Your task to perform on an android device: What's on my calendar tomorrow? Image 0: 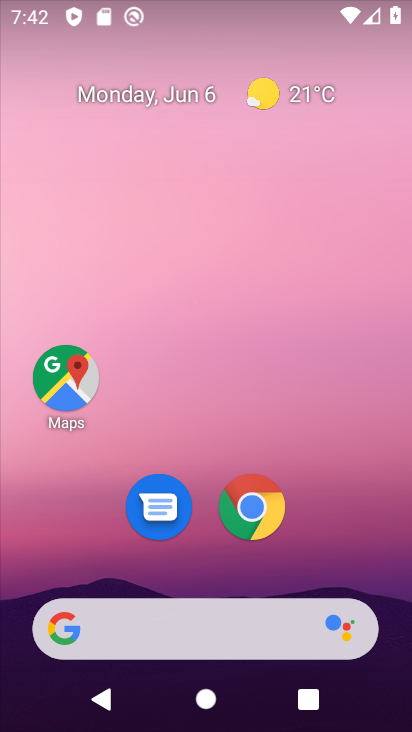
Step 0: drag from (221, 554) to (330, 0)
Your task to perform on an android device: What's on my calendar tomorrow? Image 1: 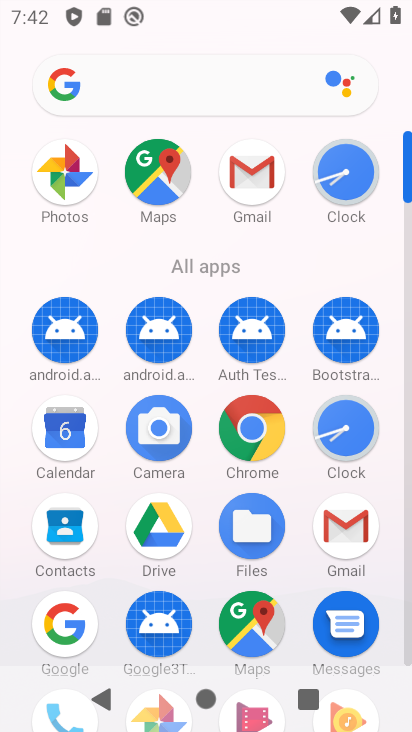
Step 1: drag from (201, 620) to (234, 305)
Your task to perform on an android device: What's on my calendar tomorrow? Image 2: 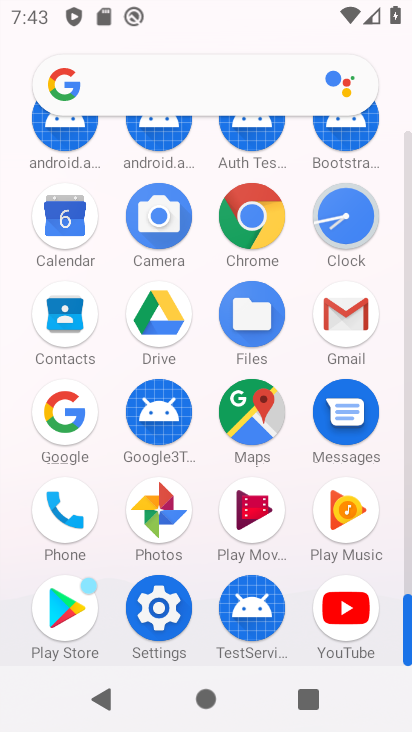
Step 2: drag from (302, 587) to (330, 316)
Your task to perform on an android device: What's on my calendar tomorrow? Image 3: 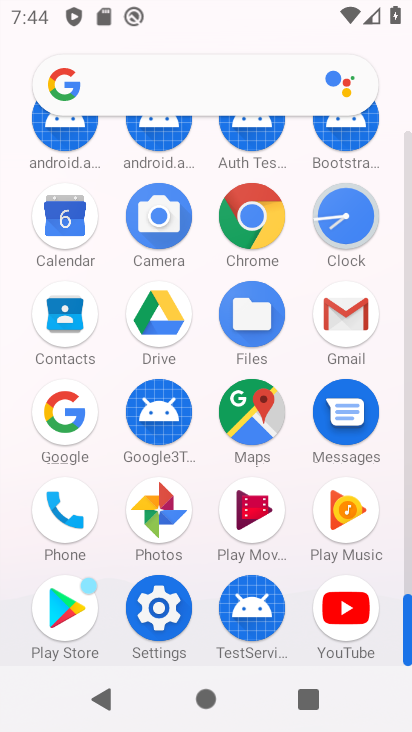
Step 3: drag from (240, 186) to (190, 375)
Your task to perform on an android device: What's on my calendar tomorrow? Image 4: 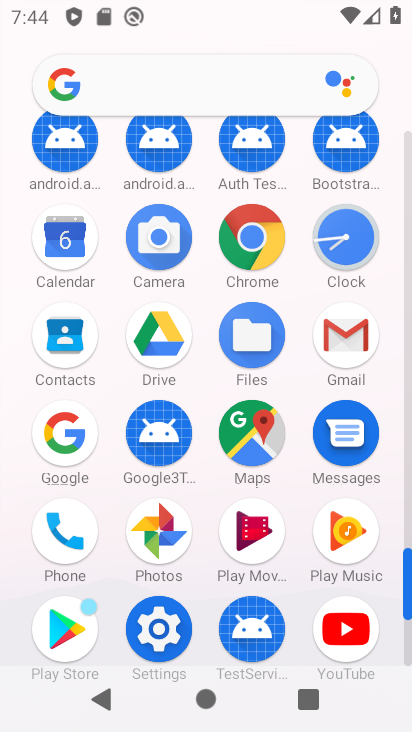
Step 4: drag from (227, 484) to (285, 261)
Your task to perform on an android device: What's on my calendar tomorrow? Image 5: 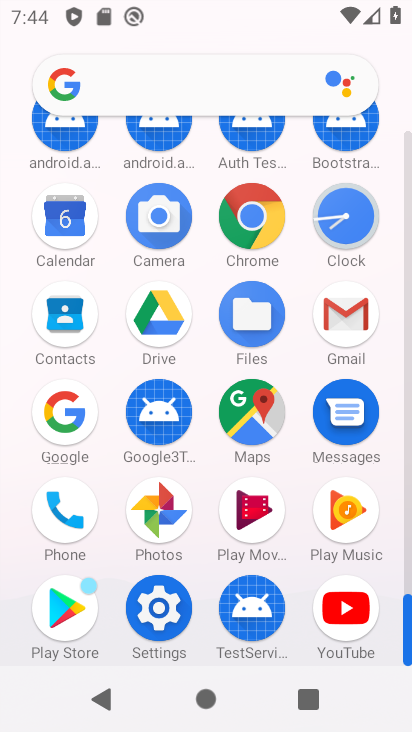
Step 5: click (49, 224)
Your task to perform on an android device: What's on my calendar tomorrow? Image 6: 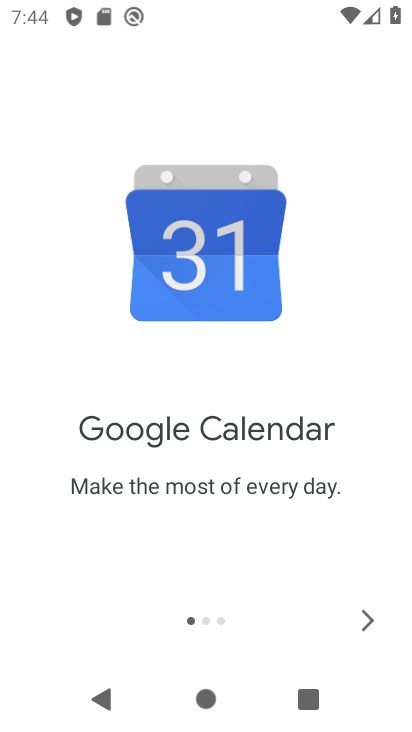
Step 6: click (377, 619)
Your task to perform on an android device: What's on my calendar tomorrow? Image 7: 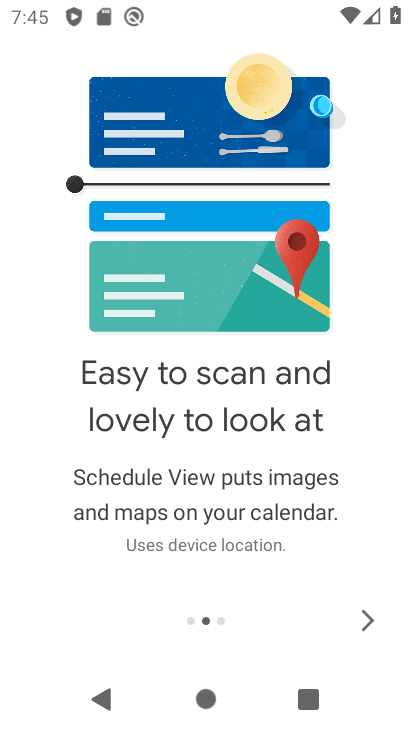
Step 7: click (377, 618)
Your task to perform on an android device: What's on my calendar tomorrow? Image 8: 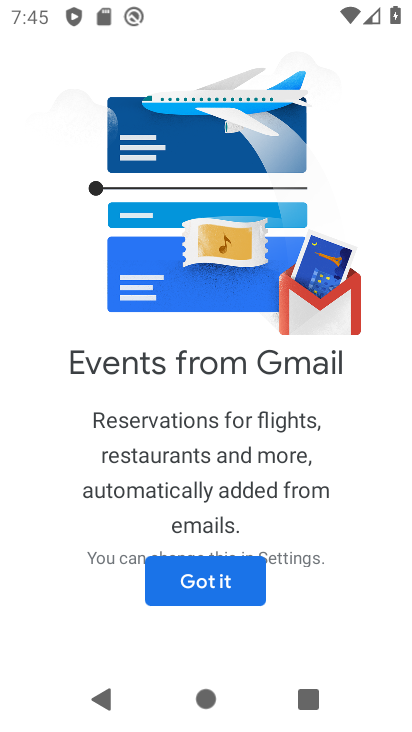
Step 8: click (204, 577)
Your task to perform on an android device: What's on my calendar tomorrow? Image 9: 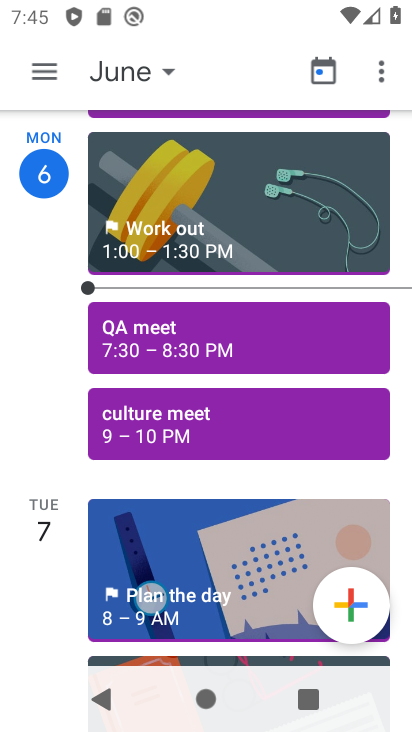
Step 9: task complete